Your task to perform on an android device: Open the Play Movies app and select the watchlist tab. Image 0: 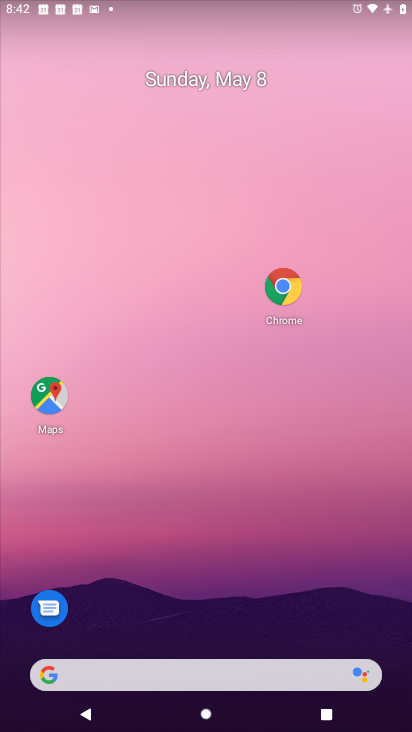
Step 0: drag from (191, 674) to (334, 183)
Your task to perform on an android device: Open the Play Movies app and select the watchlist tab. Image 1: 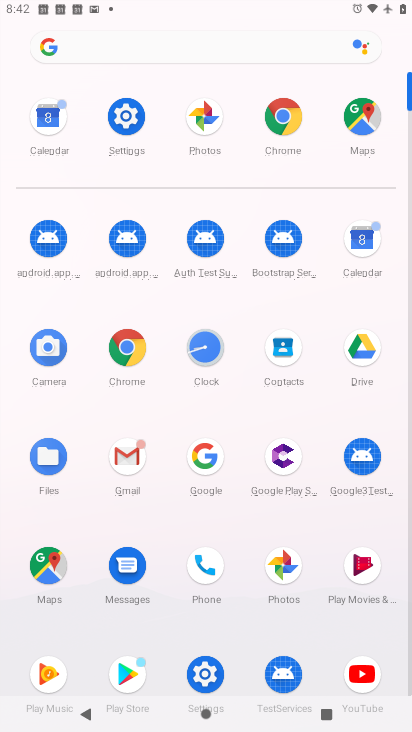
Step 1: click (365, 571)
Your task to perform on an android device: Open the Play Movies app and select the watchlist tab. Image 2: 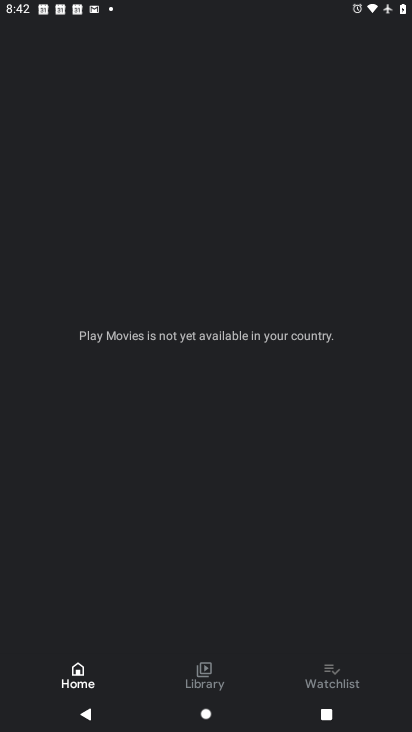
Step 2: click (332, 670)
Your task to perform on an android device: Open the Play Movies app and select the watchlist tab. Image 3: 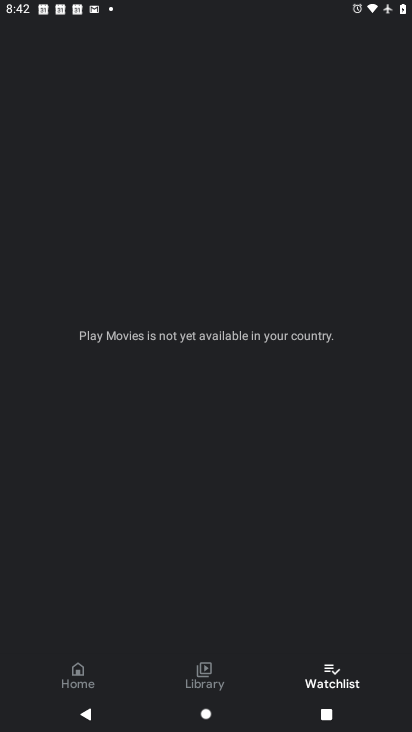
Step 3: task complete